Your task to perform on an android device: visit the assistant section in the google photos Image 0: 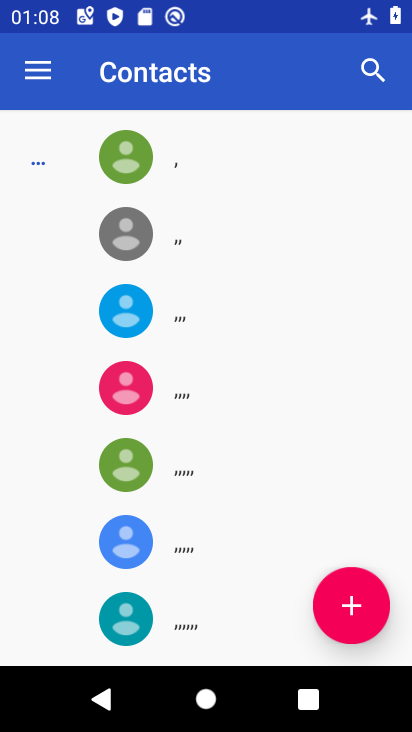
Step 0: press home button
Your task to perform on an android device: visit the assistant section in the google photos Image 1: 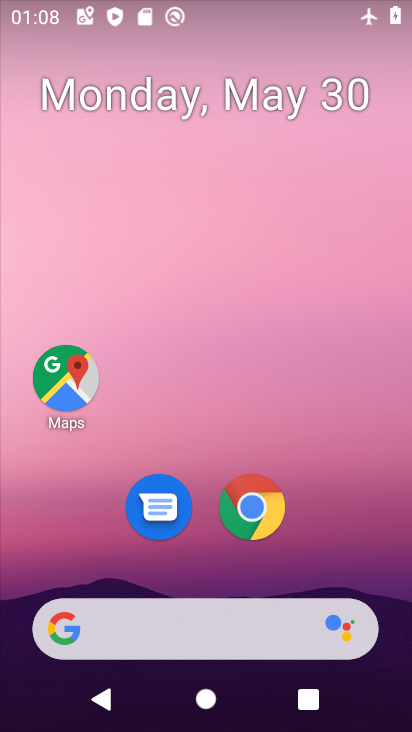
Step 1: drag from (284, 485) to (291, 251)
Your task to perform on an android device: visit the assistant section in the google photos Image 2: 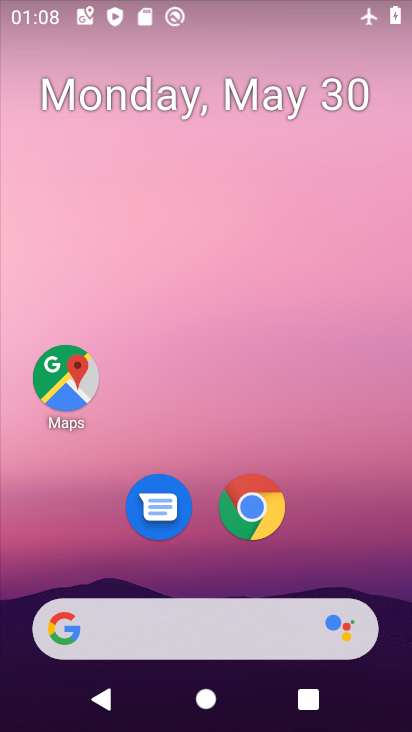
Step 2: drag from (263, 510) to (246, 188)
Your task to perform on an android device: visit the assistant section in the google photos Image 3: 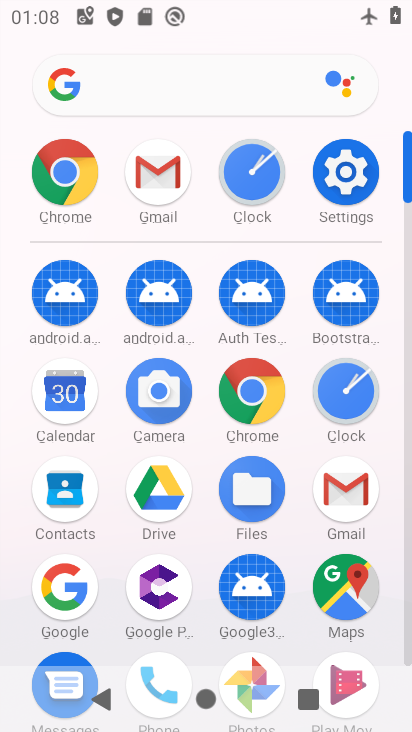
Step 3: drag from (206, 596) to (199, 408)
Your task to perform on an android device: visit the assistant section in the google photos Image 4: 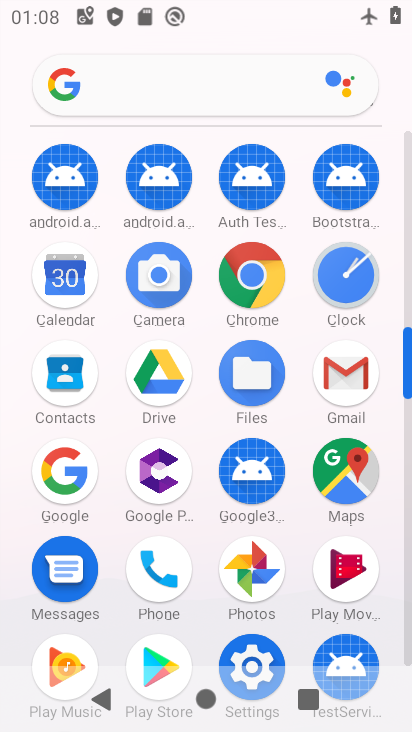
Step 4: click (271, 562)
Your task to perform on an android device: visit the assistant section in the google photos Image 5: 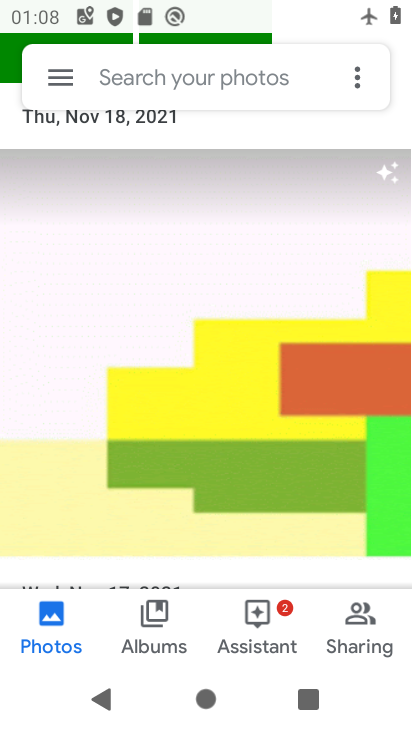
Step 5: click (255, 621)
Your task to perform on an android device: visit the assistant section in the google photos Image 6: 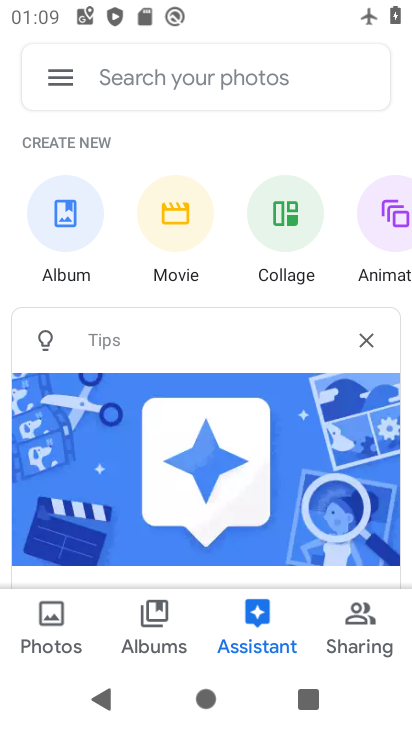
Step 6: task complete